Your task to perform on an android device: Go to Yahoo.com Image 0: 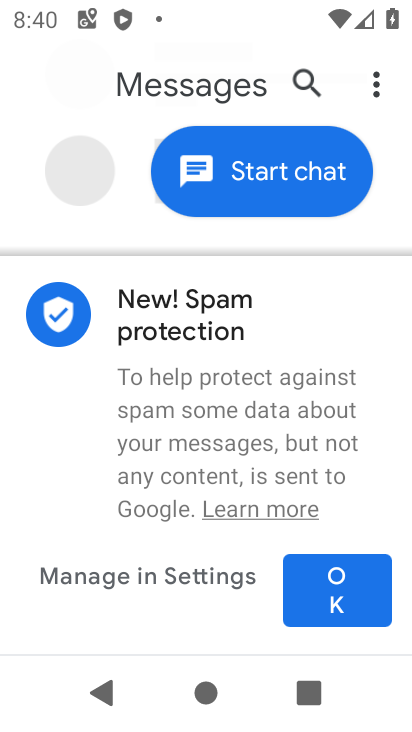
Step 0: press home button
Your task to perform on an android device: Go to Yahoo.com Image 1: 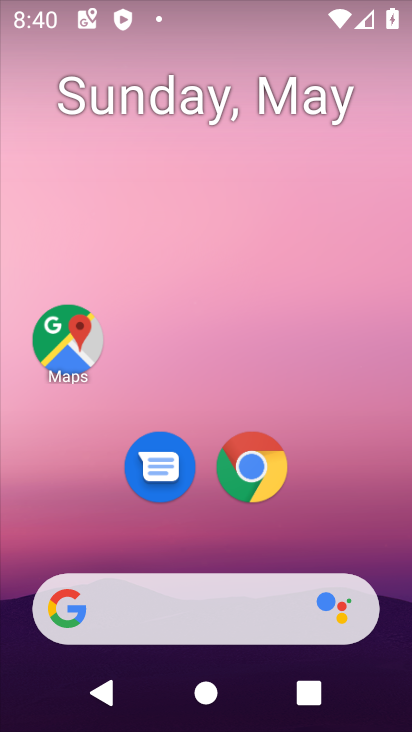
Step 1: click (256, 462)
Your task to perform on an android device: Go to Yahoo.com Image 2: 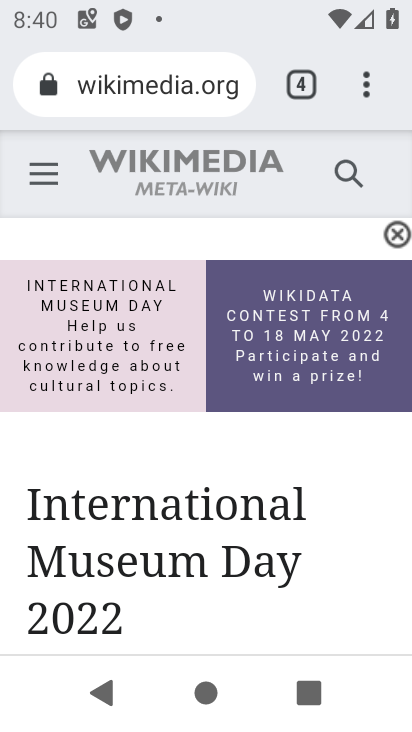
Step 2: click (302, 92)
Your task to perform on an android device: Go to Yahoo.com Image 3: 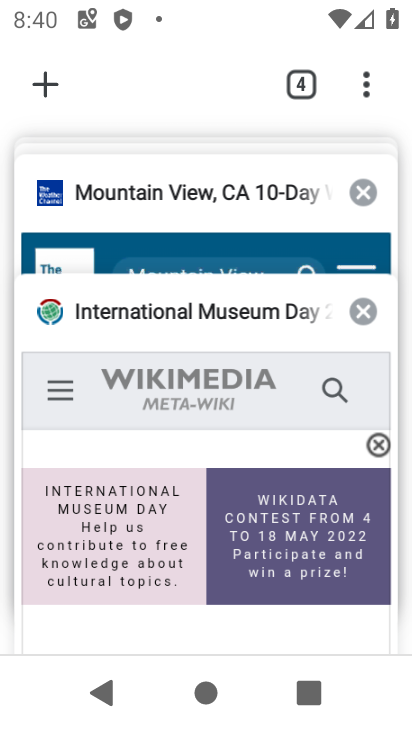
Step 3: click (28, 91)
Your task to perform on an android device: Go to Yahoo.com Image 4: 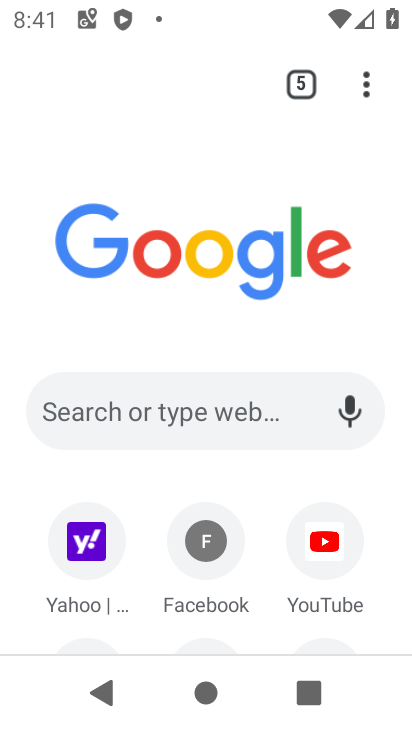
Step 4: click (97, 524)
Your task to perform on an android device: Go to Yahoo.com Image 5: 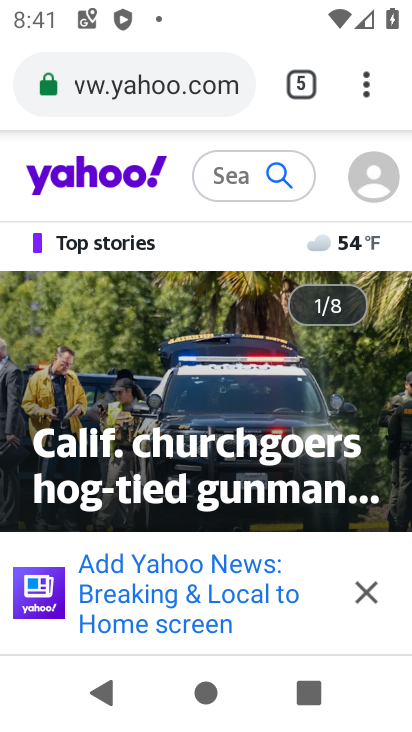
Step 5: task complete